Your task to perform on an android device: turn on airplane mode Image 0: 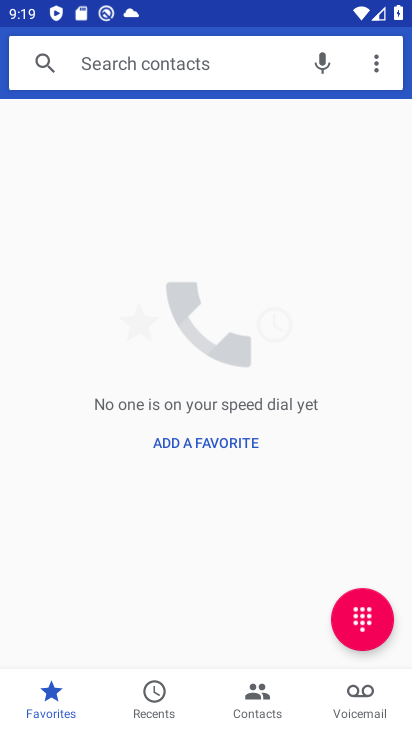
Step 0: press home button
Your task to perform on an android device: turn on airplane mode Image 1: 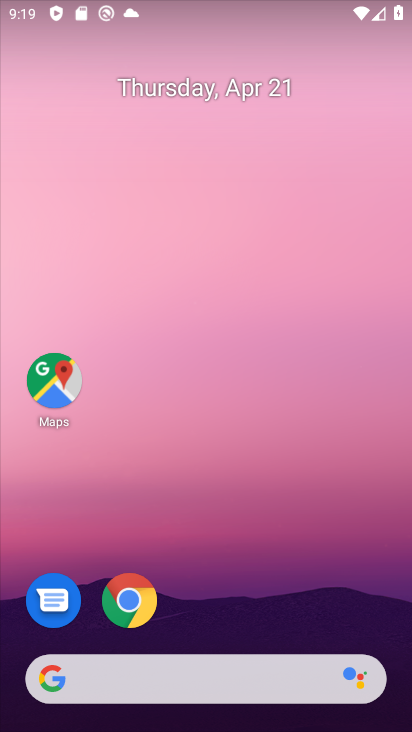
Step 1: drag from (254, 529) to (255, 82)
Your task to perform on an android device: turn on airplane mode Image 2: 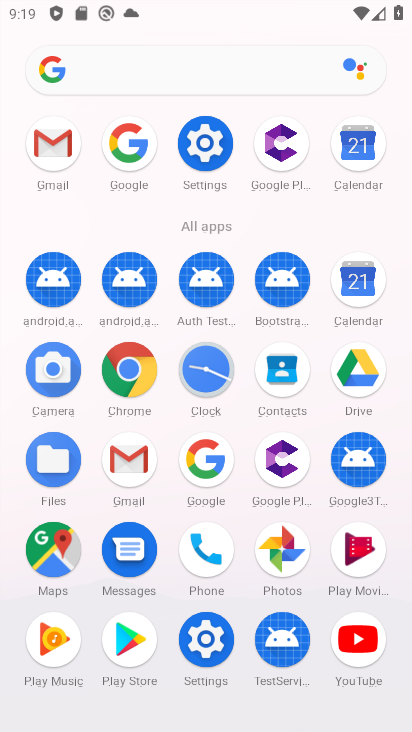
Step 2: click (202, 139)
Your task to perform on an android device: turn on airplane mode Image 3: 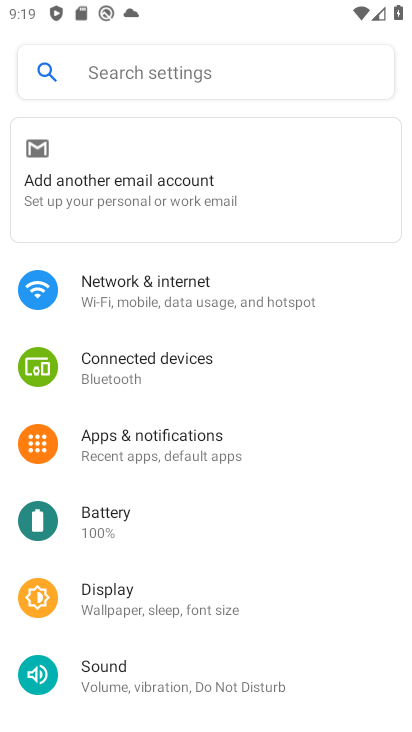
Step 3: click (192, 293)
Your task to perform on an android device: turn on airplane mode Image 4: 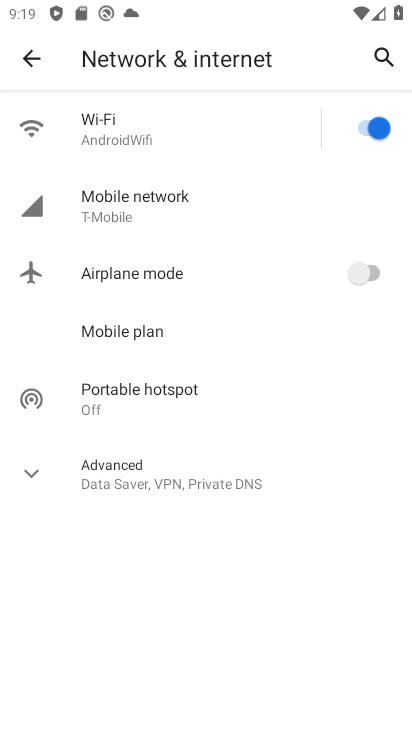
Step 4: click (371, 272)
Your task to perform on an android device: turn on airplane mode Image 5: 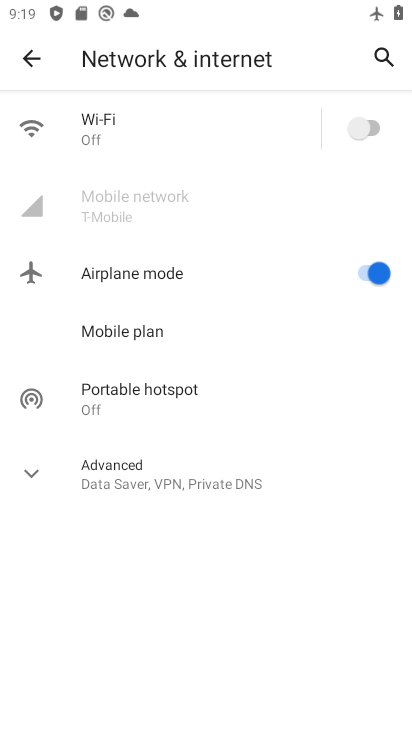
Step 5: task complete